Your task to perform on an android device: turn off notifications settings in the gmail app Image 0: 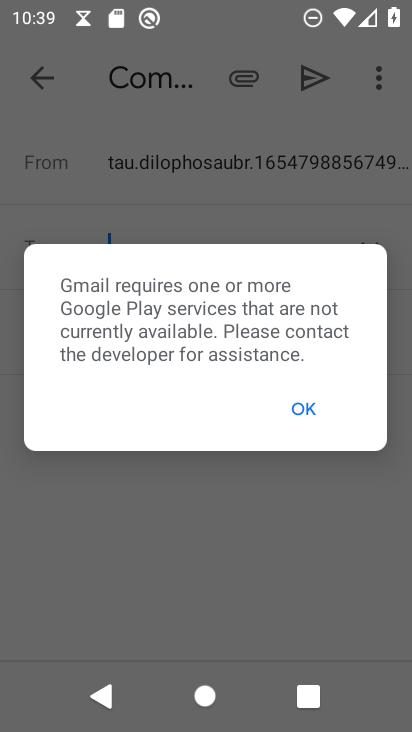
Step 0: click (282, 403)
Your task to perform on an android device: turn off notifications settings in the gmail app Image 1: 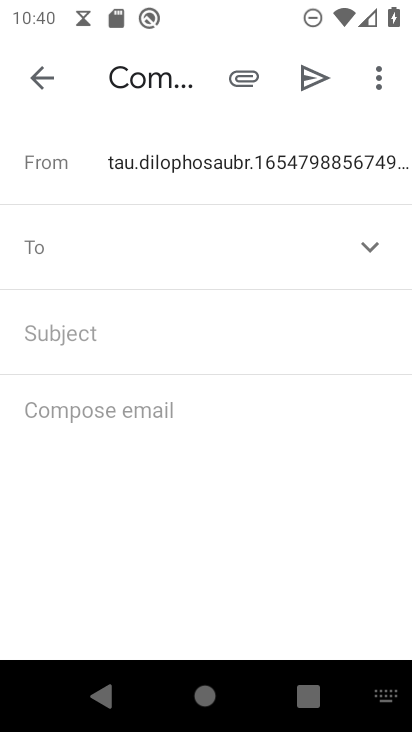
Step 1: press back button
Your task to perform on an android device: turn off notifications settings in the gmail app Image 2: 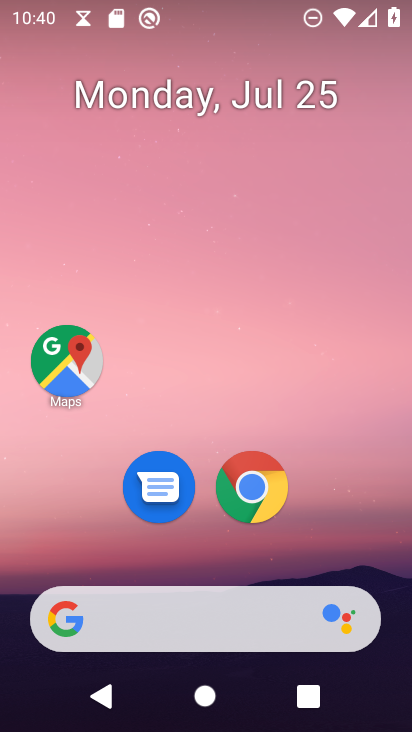
Step 2: drag from (189, 558) to (253, 1)
Your task to perform on an android device: turn off notifications settings in the gmail app Image 3: 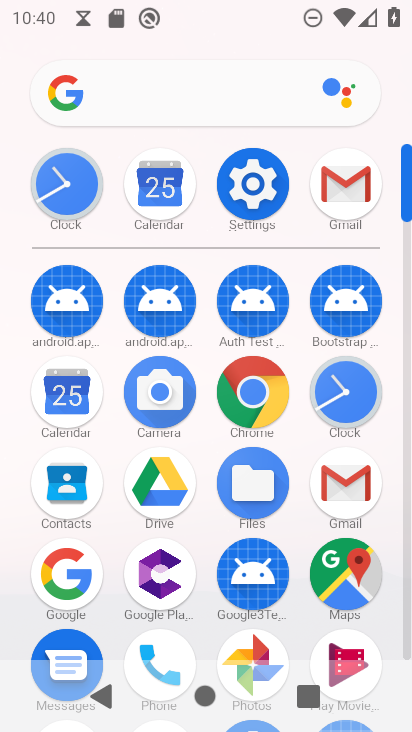
Step 3: click (348, 189)
Your task to perform on an android device: turn off notifications settings in the gmail app Image 4: 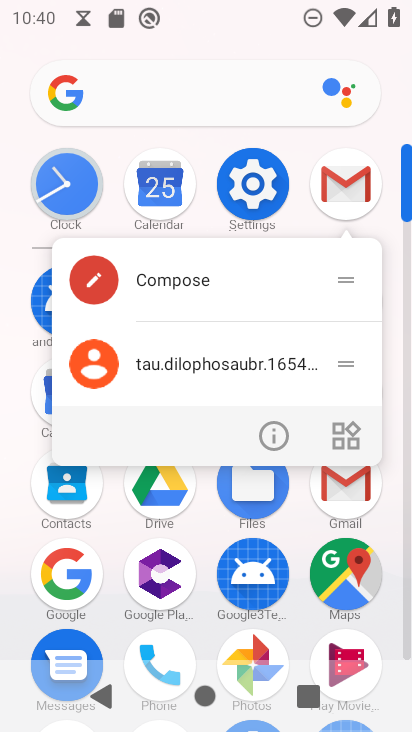
Step 4: click (275, 430)
Your task to perform on an android device: turn off notifications settings in the gmail app Image 5: 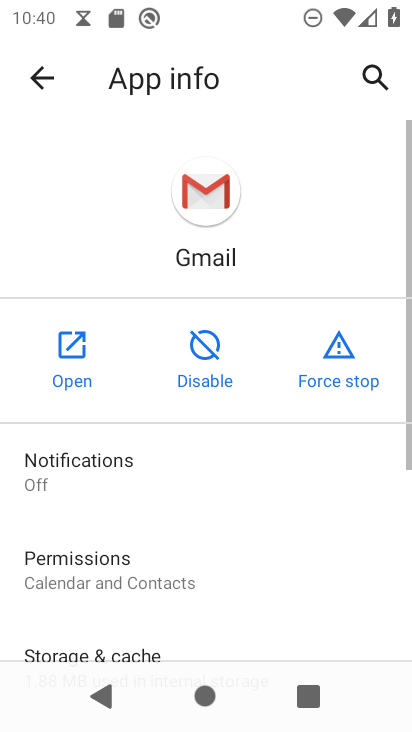
Step 5: click (81, 471)
Your task to perform on an android device: turn off notifications settings in the gmail app Image 6: 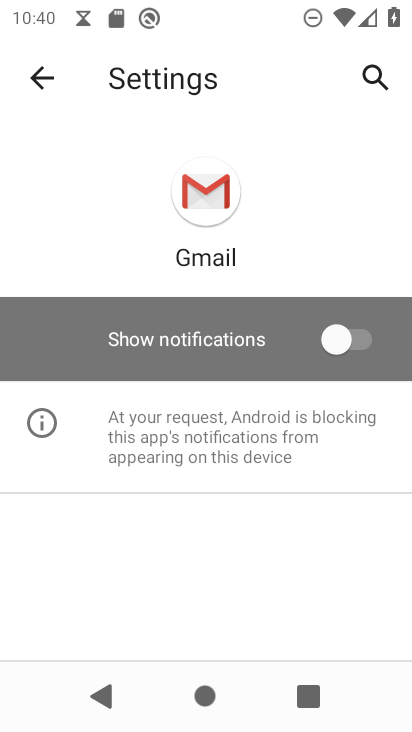
Step 6: task complete